Your task to perform on an android device: Open Youtube and go to "Your channel" Image 0: 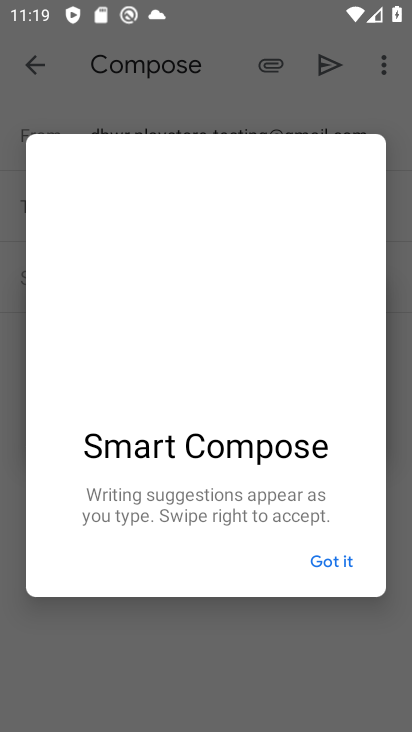
Step 0: press home button
Your task to perform on an android device: Open Youtube and go to "Your channel" Image 1: 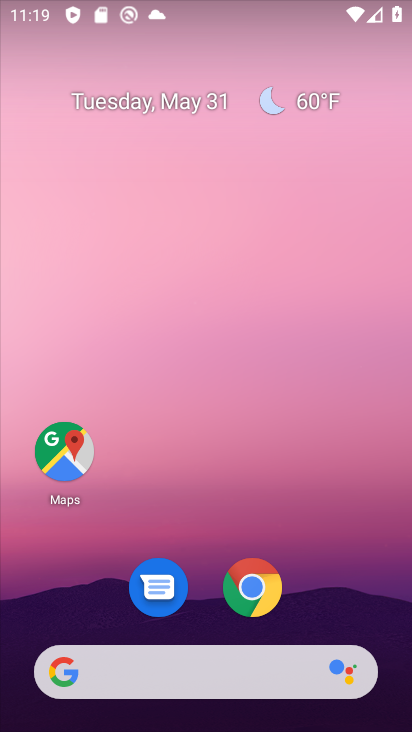
Step 1: drag from (77, 642) to (156, 192)
Your task to perform on an android device: Open Youtube and go to "Your channel" Image 2: 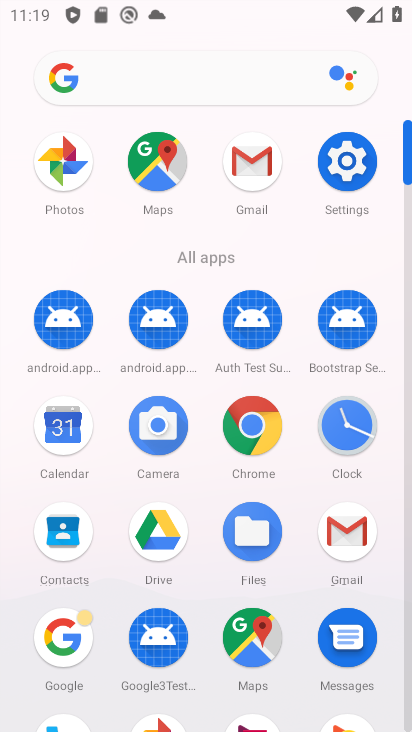
Step 2: drag from (113, 610) to (180, 212)
Your task to perform on an android device: Open Youtube and go to "Your channel" Image 3: 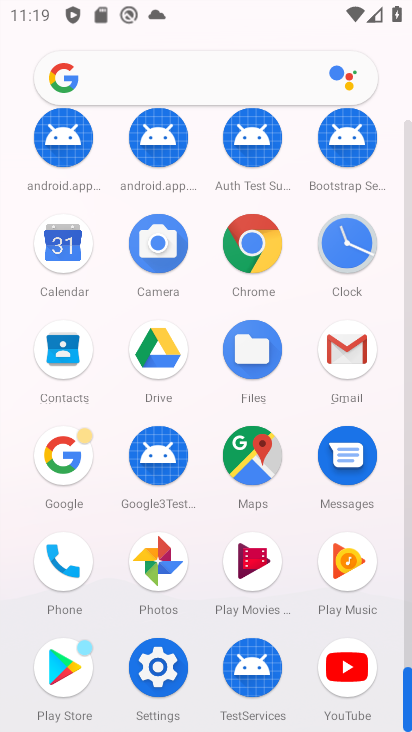
Step 3: click (356, 669)
Your task to perform on an android device: Open Youtube and go to "Your channel" Image 4: 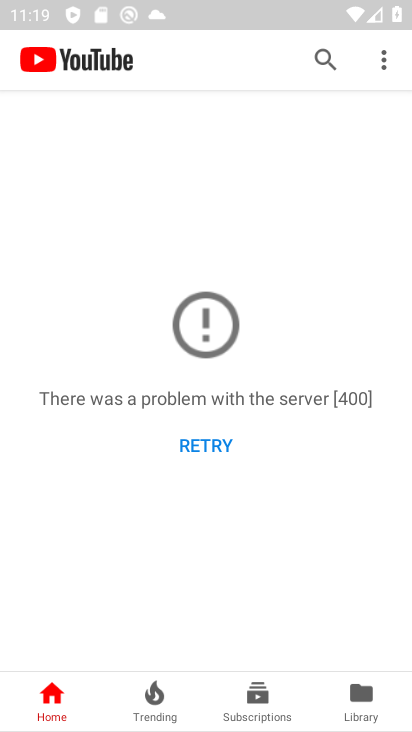
Step 4: click (369, 689)
Your task to perform on an android device: Open Youtube and go to "Your channel" Image 5: 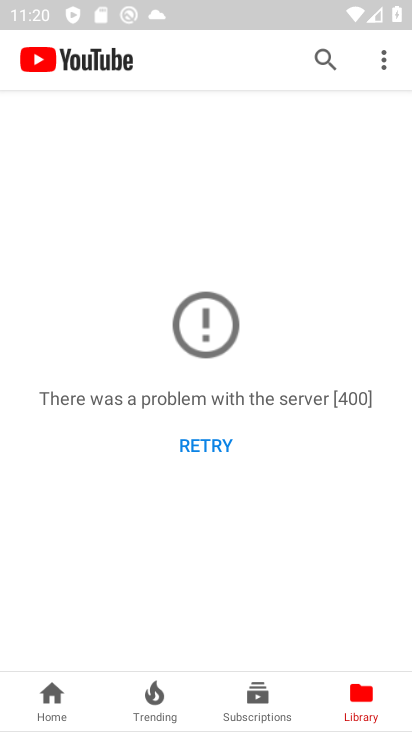
Step 5: task complete